Your task to perform on an android device: Show me popular videos on Youtube Image 0: 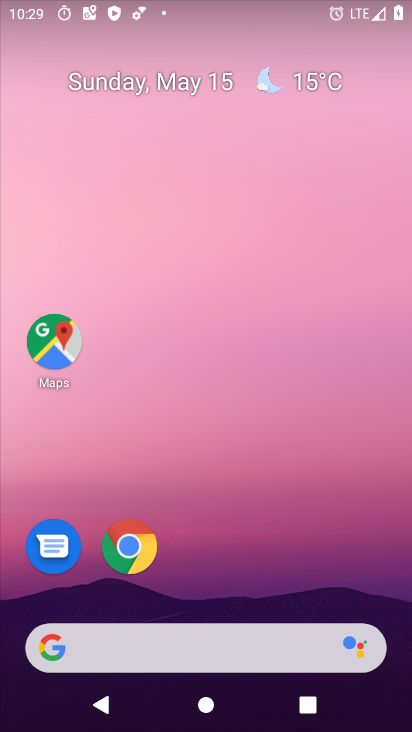
Step 0: drag from (312, 673) to (211, 212)
Your task to perform on an android device: Show me popular videos on Youtube Image 1: 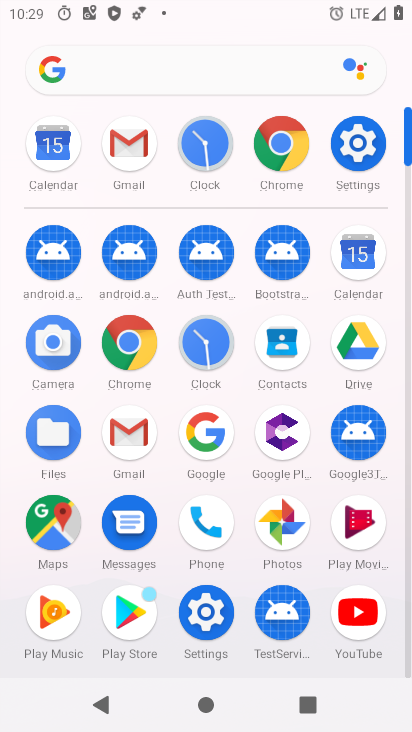
Step 1: click (357, 622)
Your task to perform on an android device: Show me popular videos on Youtube Image 2: 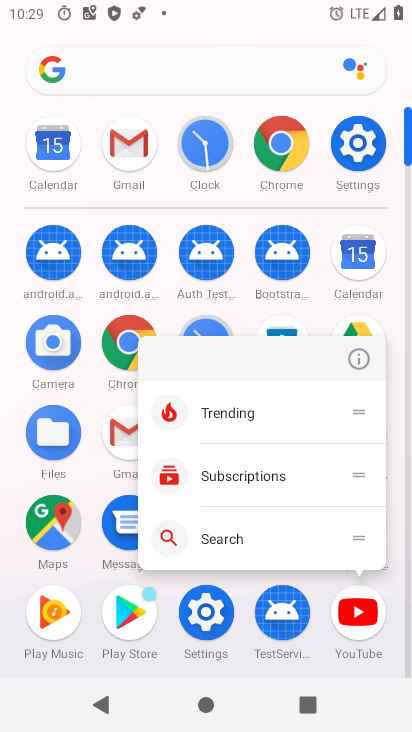
Step 2: click (356, 609)
Your task to perform on an android device: Show me popular videos on Youtube Image 3: 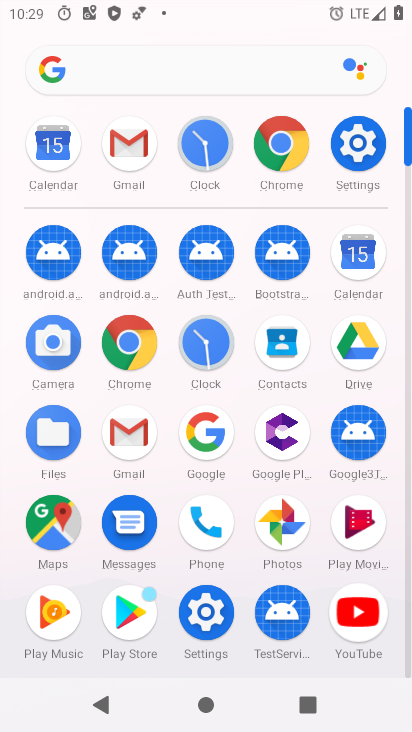
Step 3: click (351, 615)
Your task to perform on an android device: Show me popular videos on Youtube Image 4: 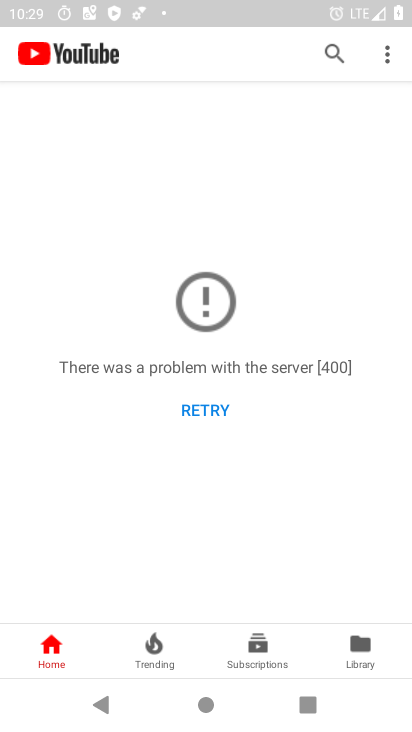
Step 4: task complete